Your task to perform on an android device: turn on wifi Image 0: 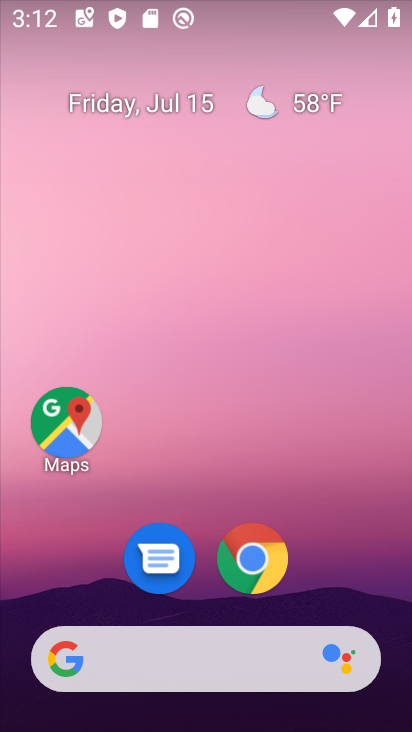
Step 0: drag from (344, 583) to (367, 45)
Your task to perform on an android device: turn on wifi Image 1: 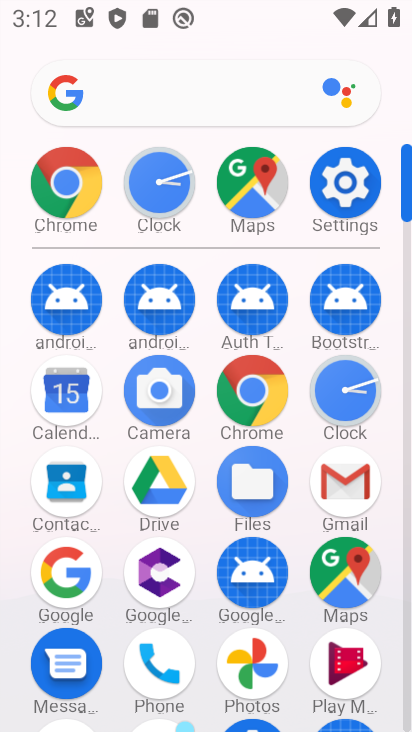
Step 1: click (361, 178)
Your task to perform on an android device: turn on wifi Image 2: 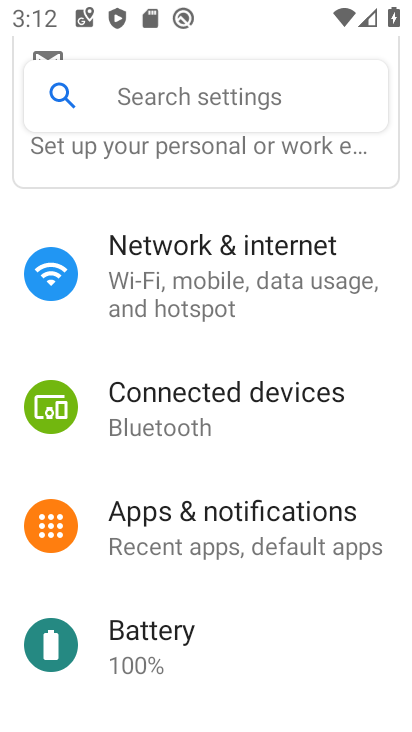
Step 2: click (336, 272)
Your task to perform on an android device: turn on wifi Image 3: 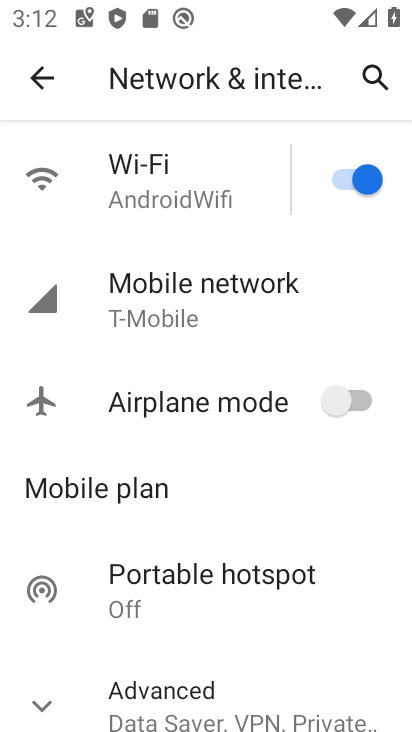
Step 3: task complete